Your task to perform on an android device: Open Google Chrome and open the bookmarks view Image 0: 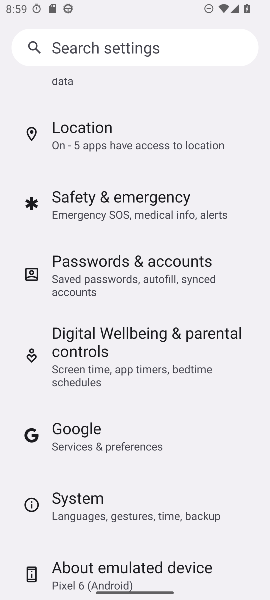
Step 0: press home button
Your task to perform on an android device: Open Google Chrome and open the bookmarks view Image 1: 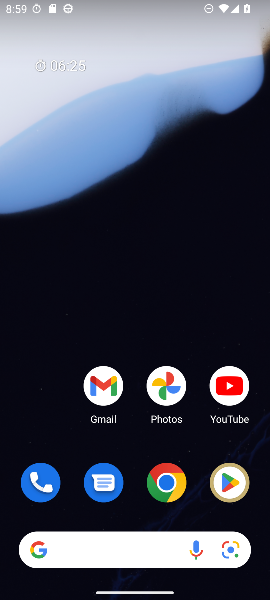
Step 1: click (162, 478)
Your task to perform on an android device: Open Google Chrome and open the bookmarks view Image 2: 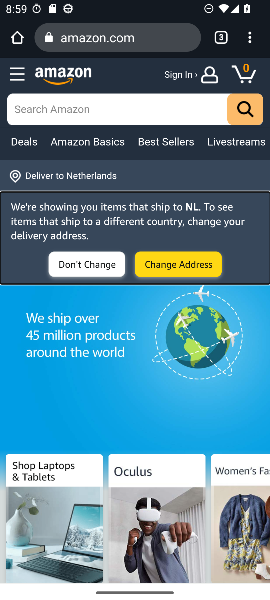
Step 2: click (219, 39)
Your task to perform on an android device: Open Google Chrome and open the bookmarks view Image 3: 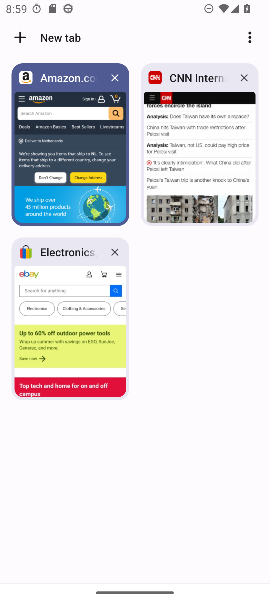
Step 3: click (245, 37)
Your task to perform on an android device: Open Google Chrome and open the bookmarks view Image 4: 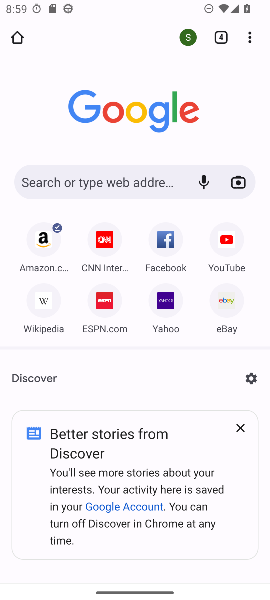
Step 4: click (251, 42)
Your task to perform on an android device: Open Google Chrome and open the bookmarks view Image 5: 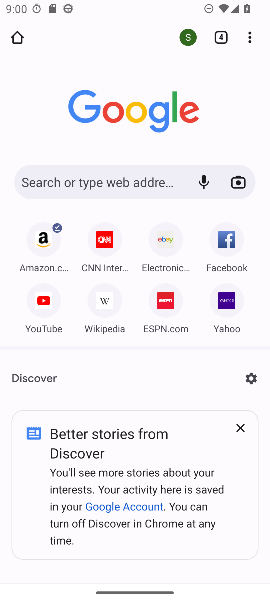
Step 5: click (251, 36)
Your task to perform on an android device: Open Google Chrome and open the bookmarks view Image 6: 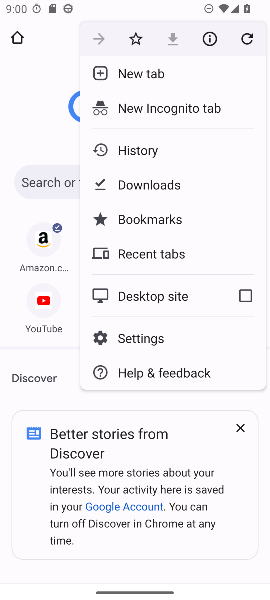
Step 6: click (157, 221)
Your task to perform on an android device: Open Google Chrome and open the bookmarks view Image 7: 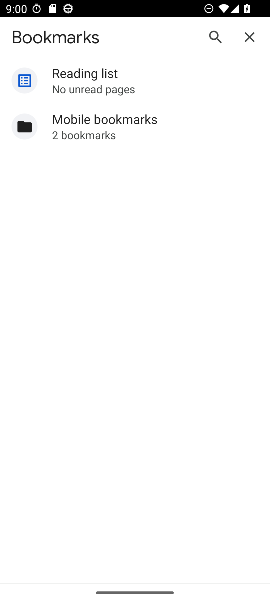
Step 7: click (95, 126)
Your task to perform on an android device: Open Google Chrome and open the bookmarks view Image 8: 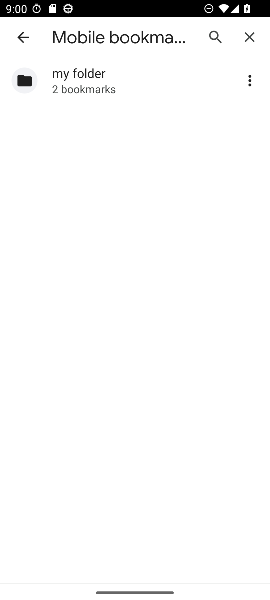
Step 8: task complete